Your task to perform on an android device: Open privacy settings Image 0: 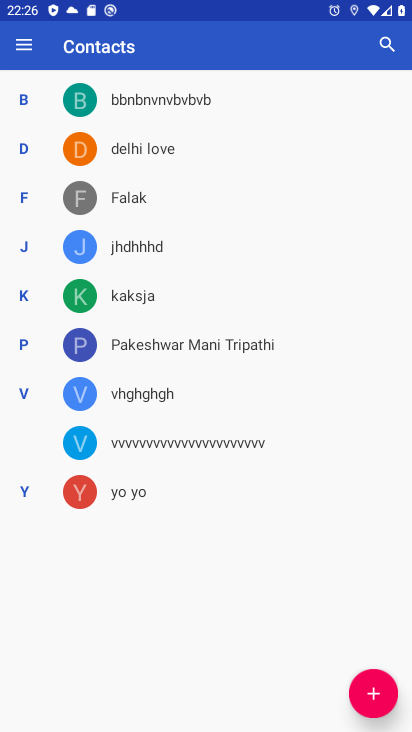
Step 0: press home button
Your task to perform on an android device: Open privacy settings Image 1: 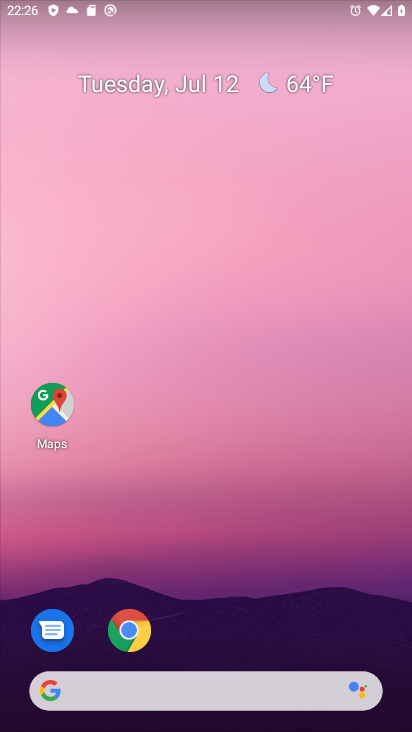
Step 1: drag from (215, 668) to (341, 190)
Your task to perform on an android device: Open privacy settings Image 2: 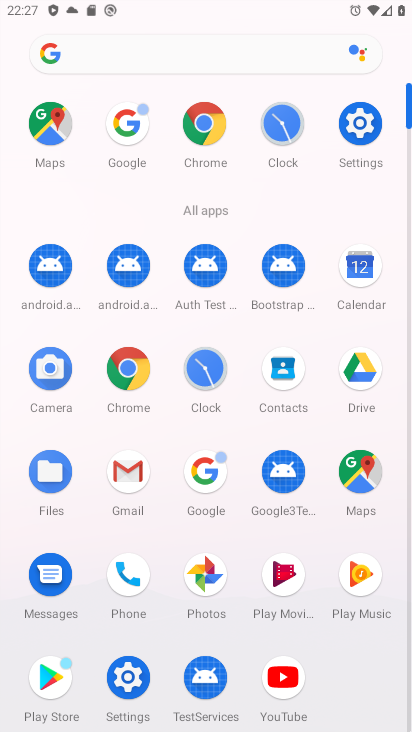
Step 2: click (131, 693)
Your task to perform on an android device: Open privacy settings Image 3: 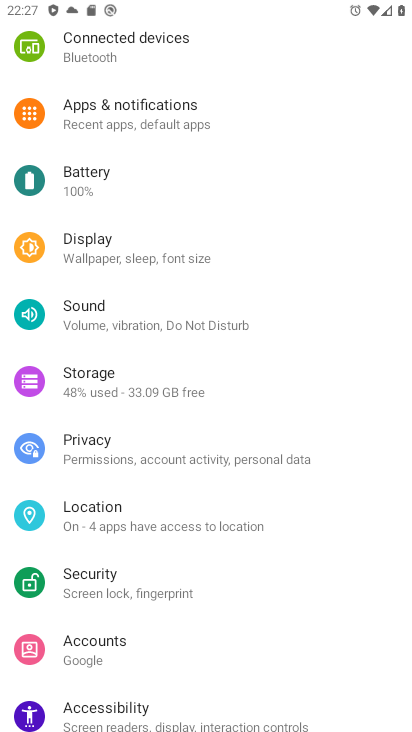
Step 3: click (90, 435)
Your task to perform on an android device: Open privacy settings Image 4: 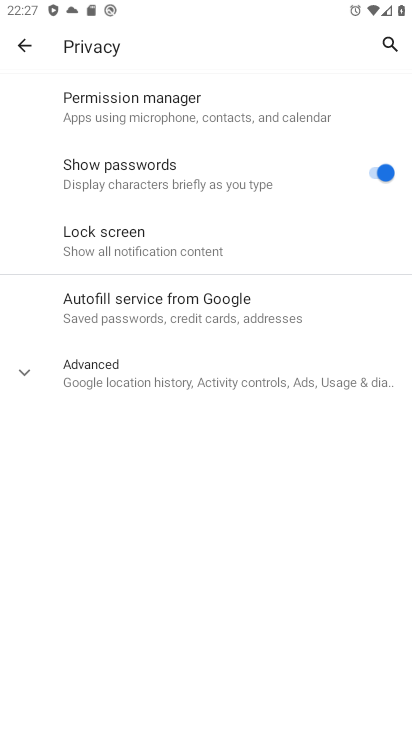
Step 4: click (105, 375)
Your task to perform on an android device: Open privacy settings Image 5: 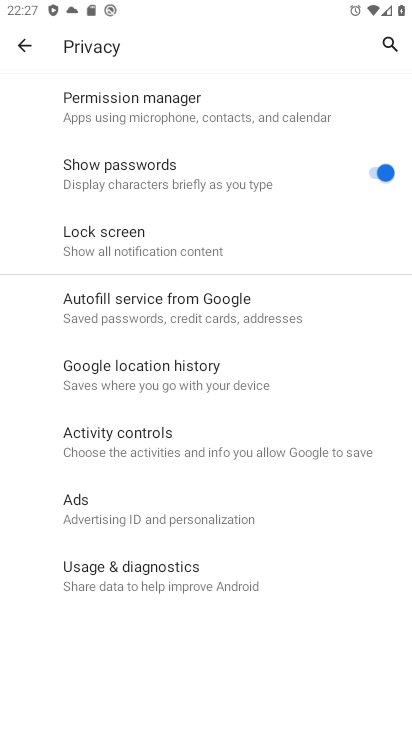
Step 5: task complete